Your task to perform on an android device: open a bookmark in the chrome app Image 0: 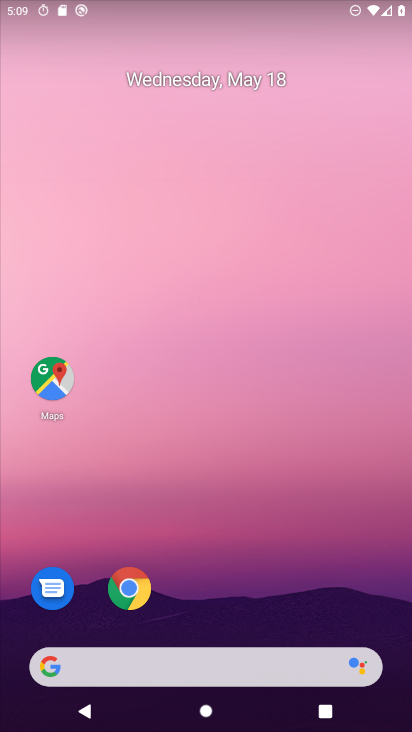
Step 0: click (116, 577)
Your task to perform on an android device: open a bookmark in the chrome app Image 1: 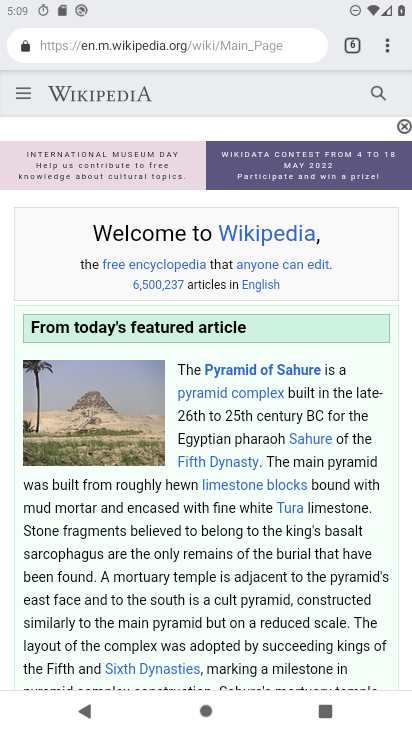
Step 1: click (270, 44)
Your task to perform on an android device: open a bookmark in the chrome app Image 2: 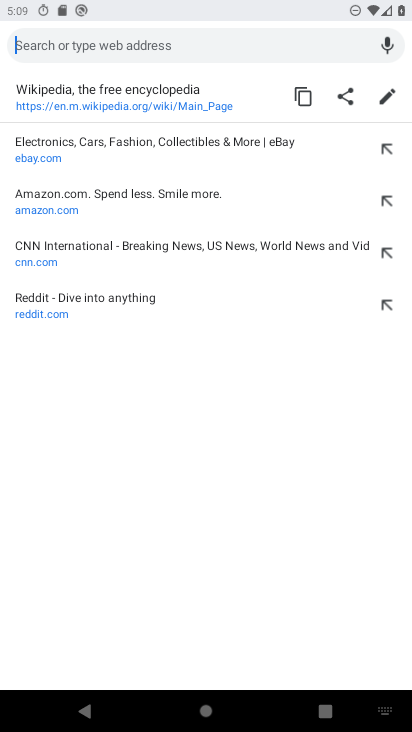
Step 2: task complete